Your task to perform on an android device: Is it going to rain tomorrow? Image 0: 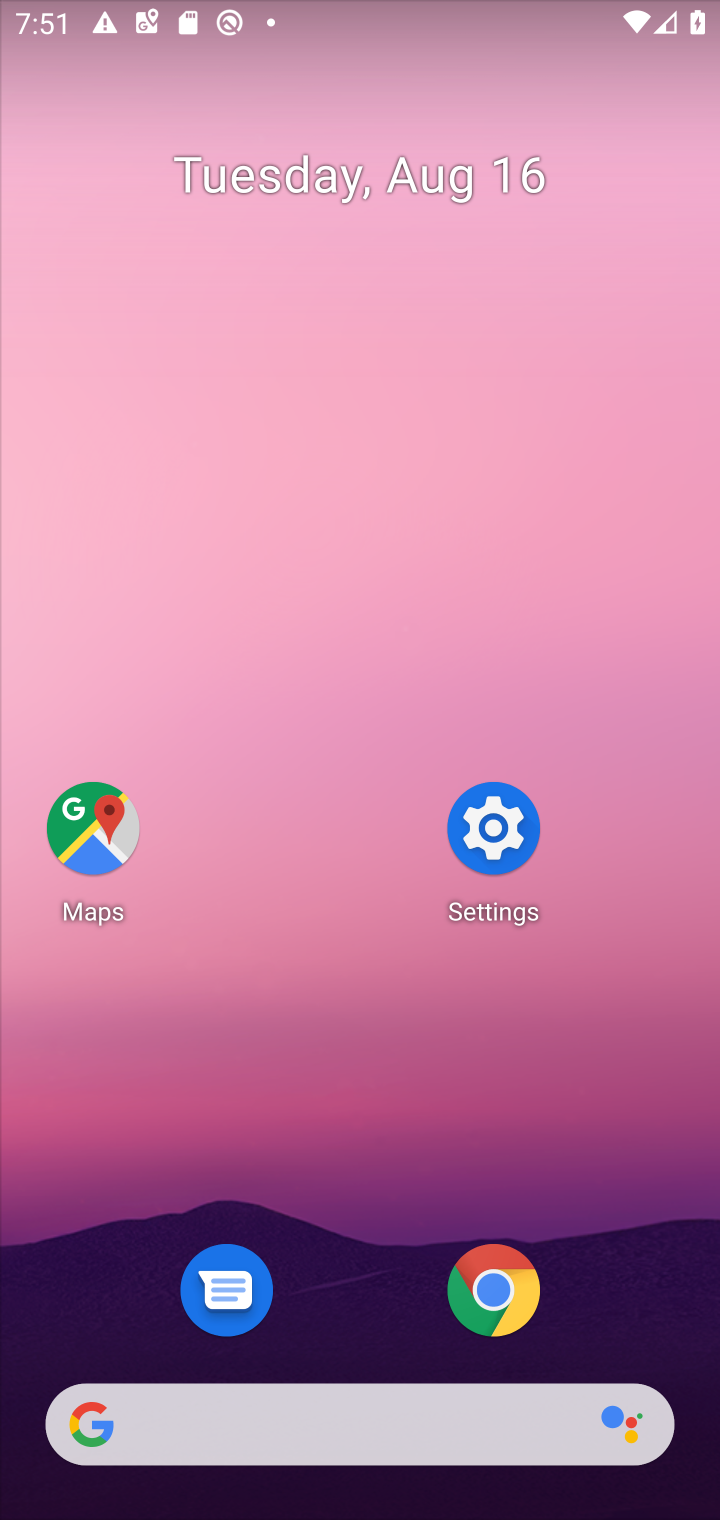
Step 0: click (284, 1430)
Your task to perform on an android device: Is it going to rain tomorrow? Image 1: 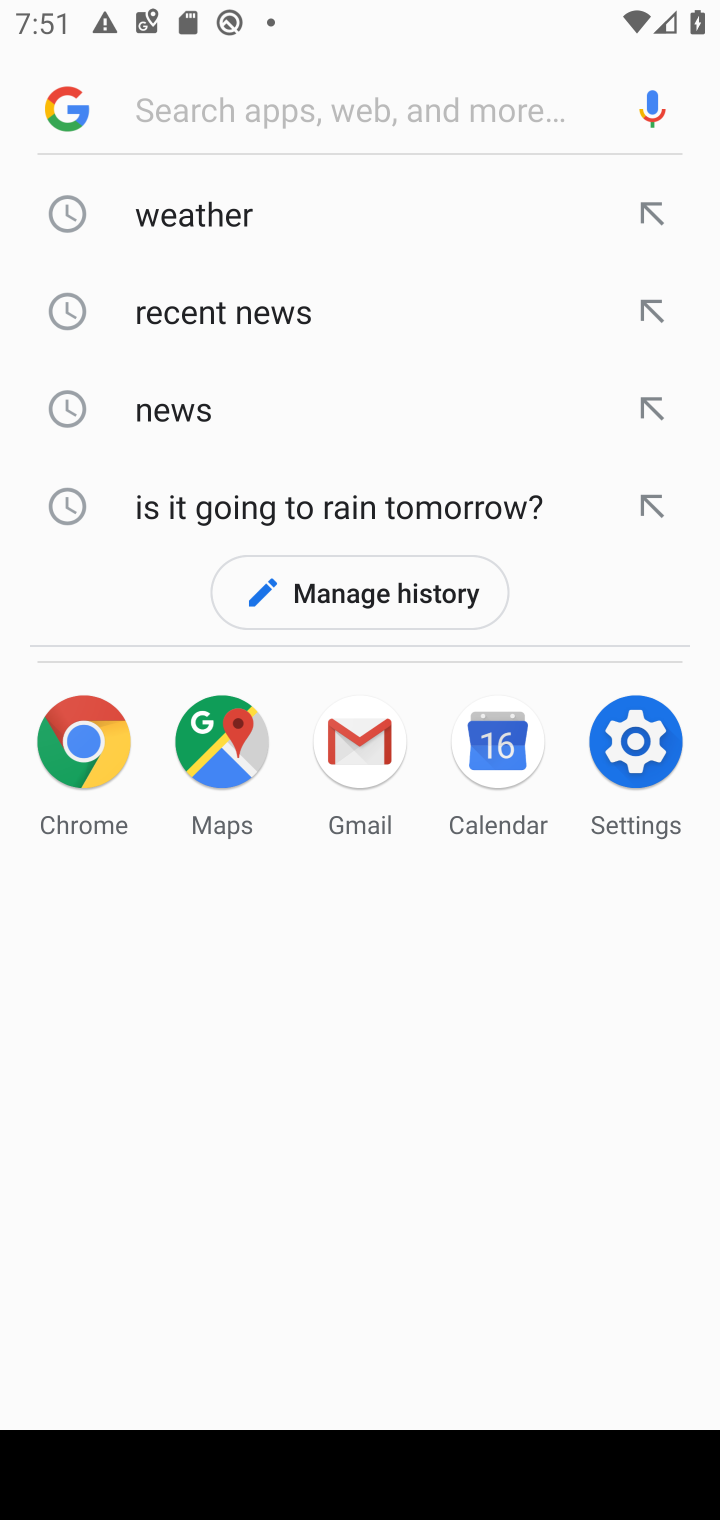
Step 1: click (213, 508)
Your task to perform on an android device: Is it going to rain tomorrow? Image 2: 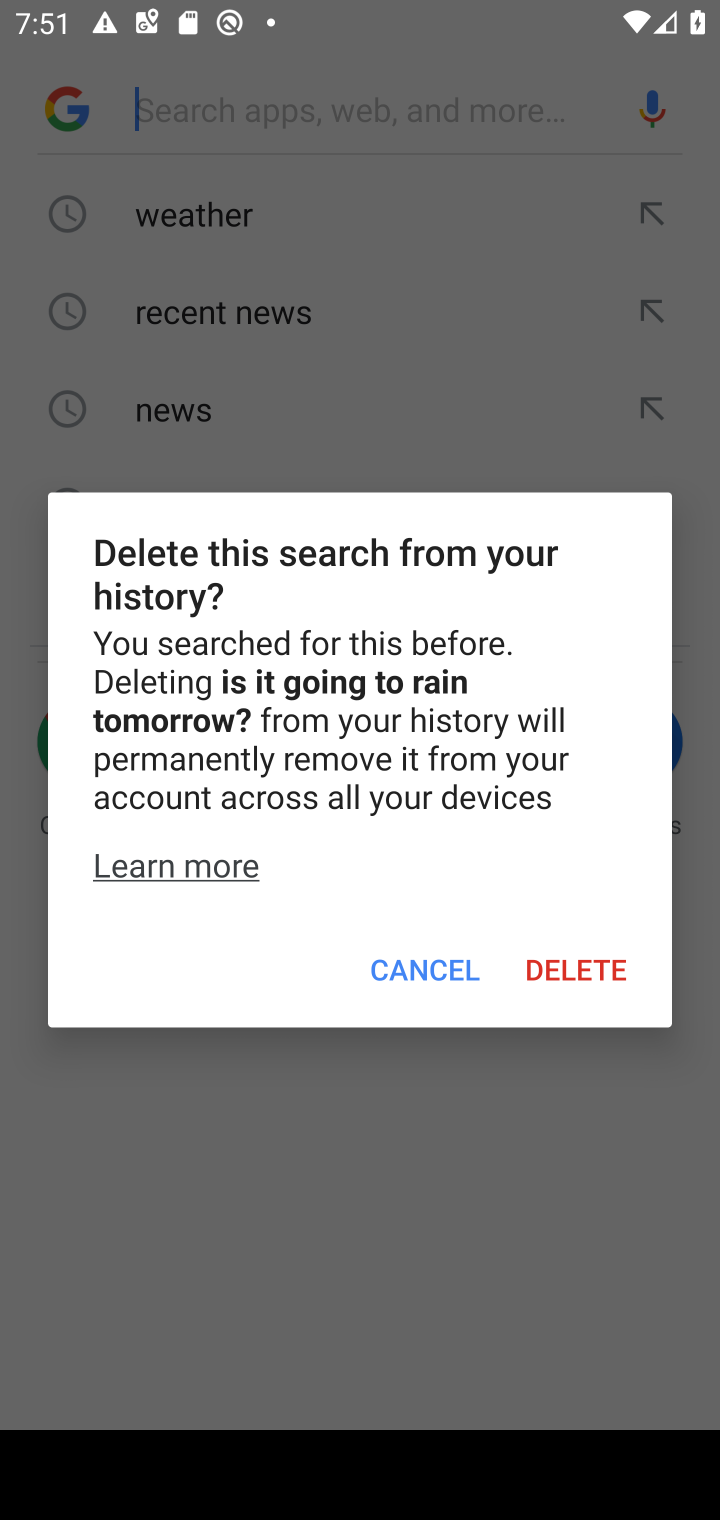
Step 2: click (407, 977)
Your task to perform on an android device: Is it going to rain tomorrow? Image 3: 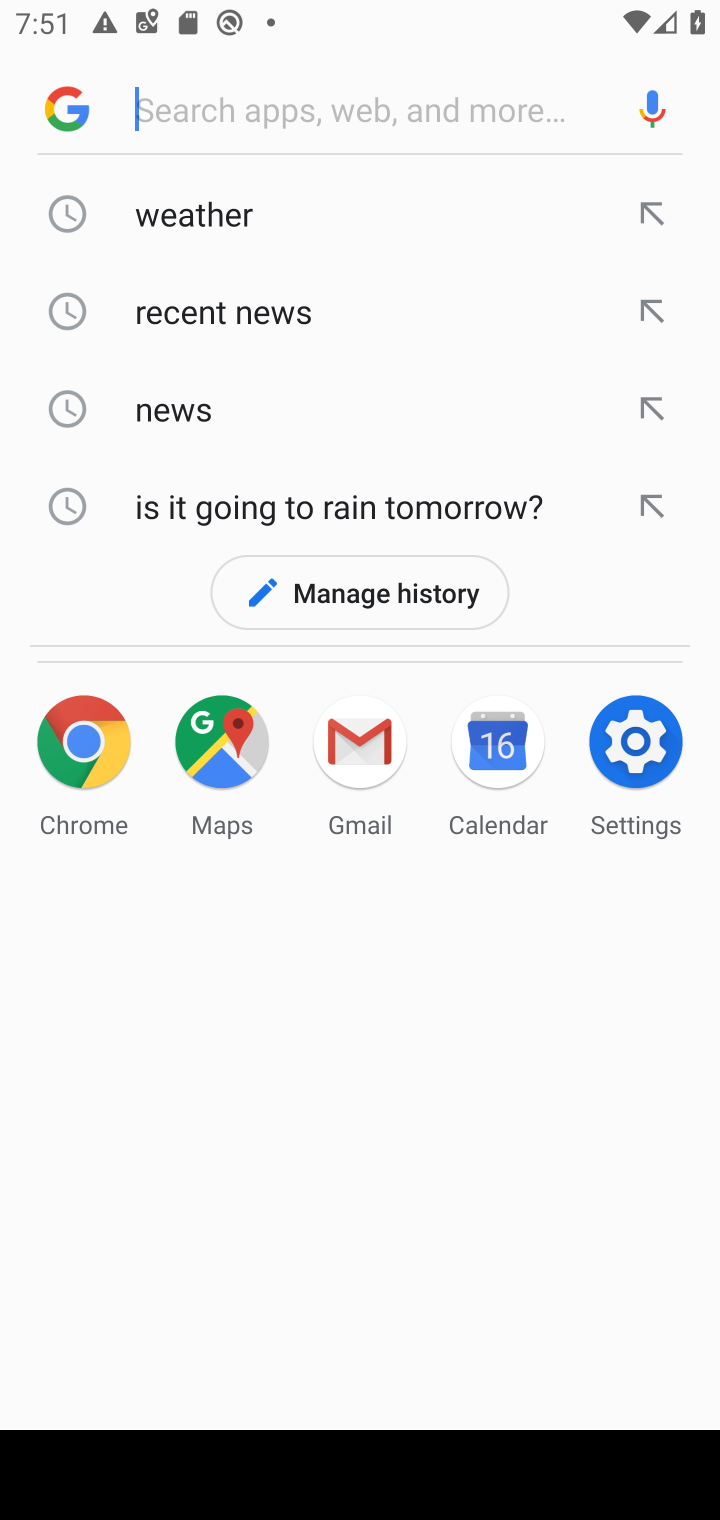
Step 3: click (145, 509)
Your task to perform on an android device: Is it going to rain tomorrow? Image 4: 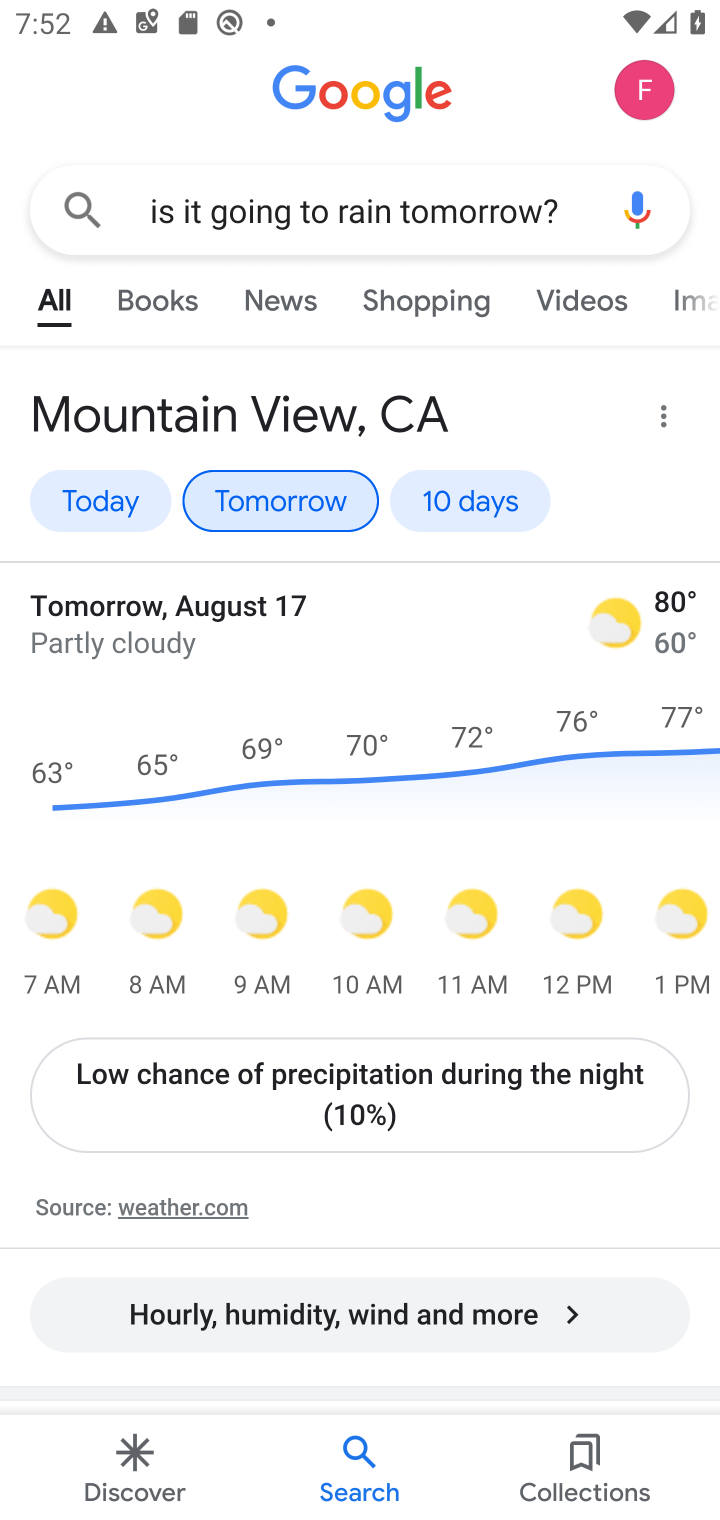
Step 4: task complete